Your task to perform on an android device: toggle notification dots Image 0: 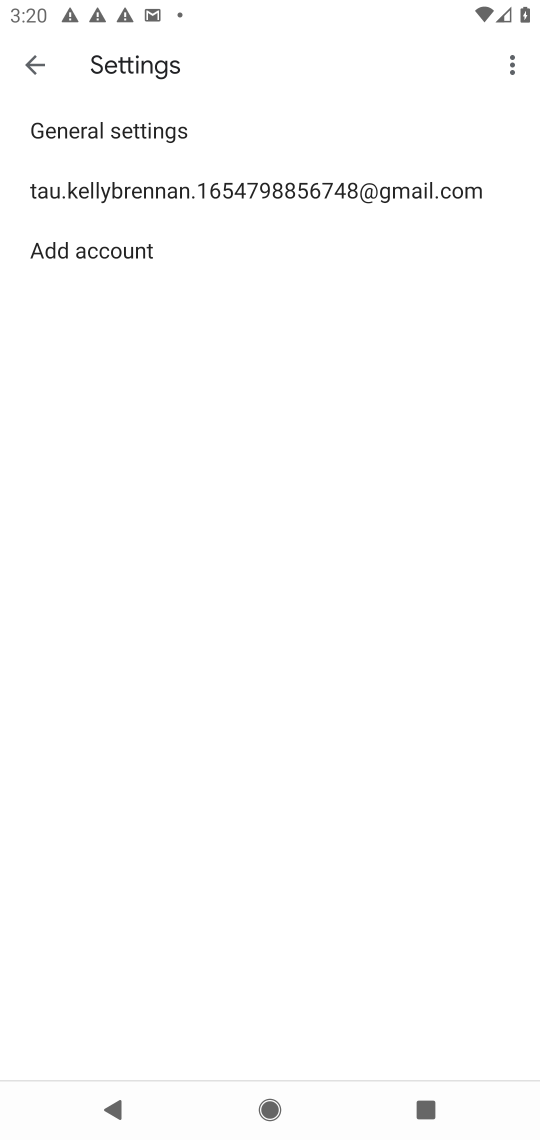
Step 0: press home button
Your task to perform on an android device: toggle notification dots Image 1: 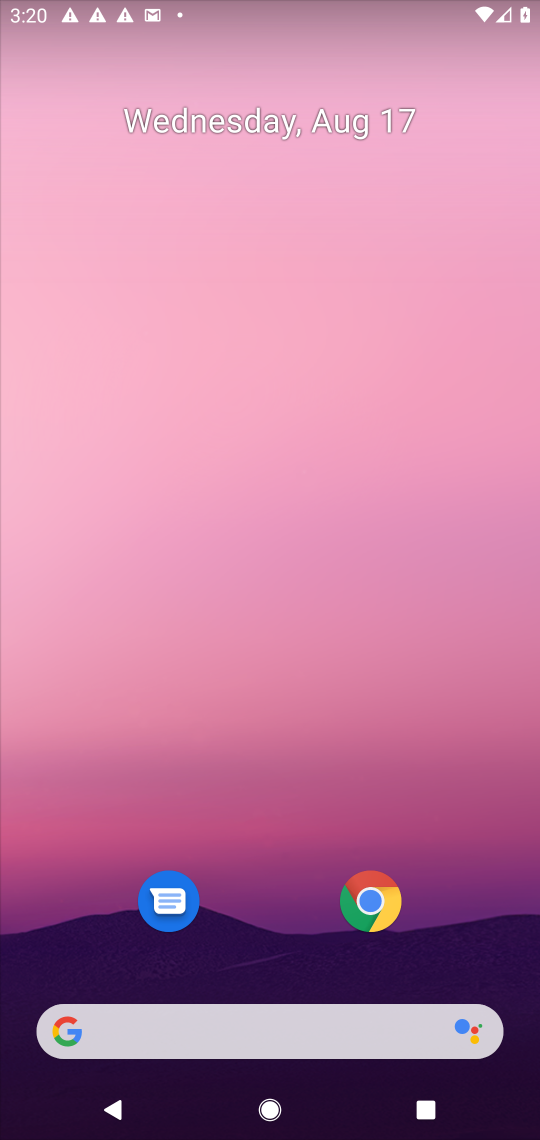
Step 1: drag from (210, 999) to (312, 352)
Your task to perform on an android device: toggle notification dots Image 2: 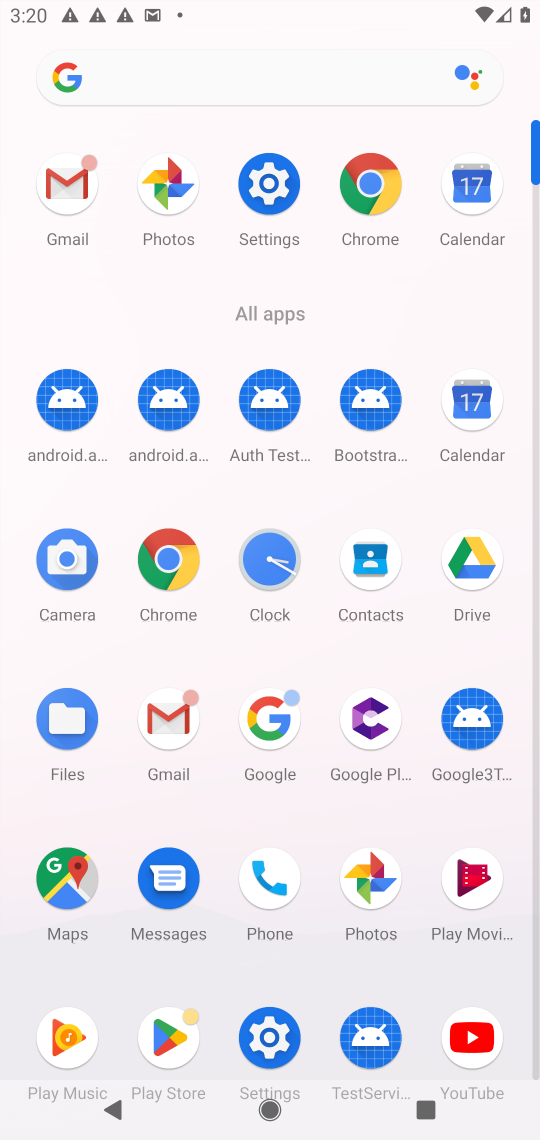
Step 2: click (246, 182)
Your task to perform on an android device: toggle notification dots Image 3: 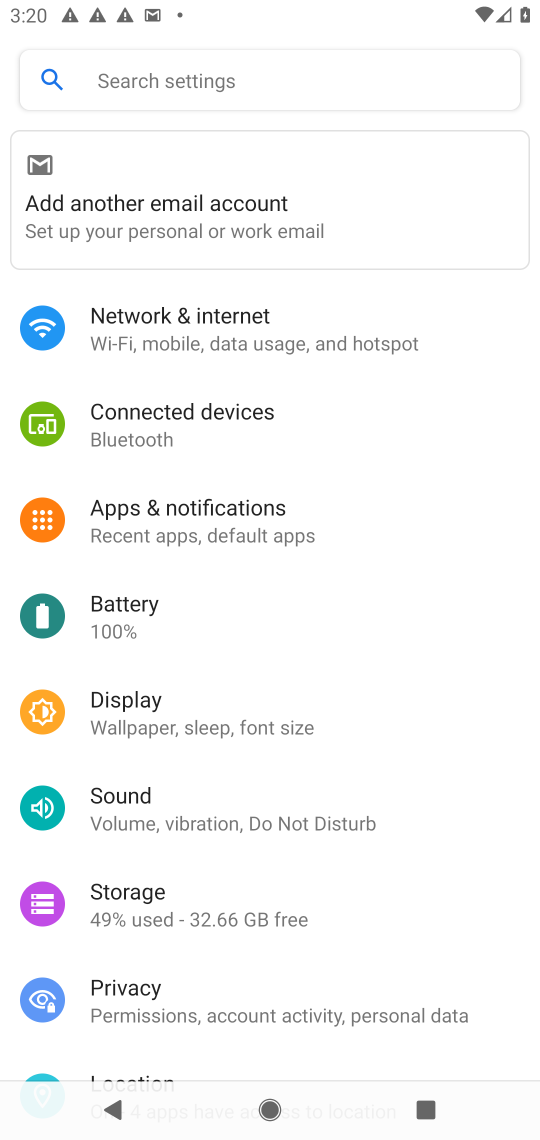
Step 3: click (211, 526)
Your task to perform on an android device: toggle notification dots Image 4: 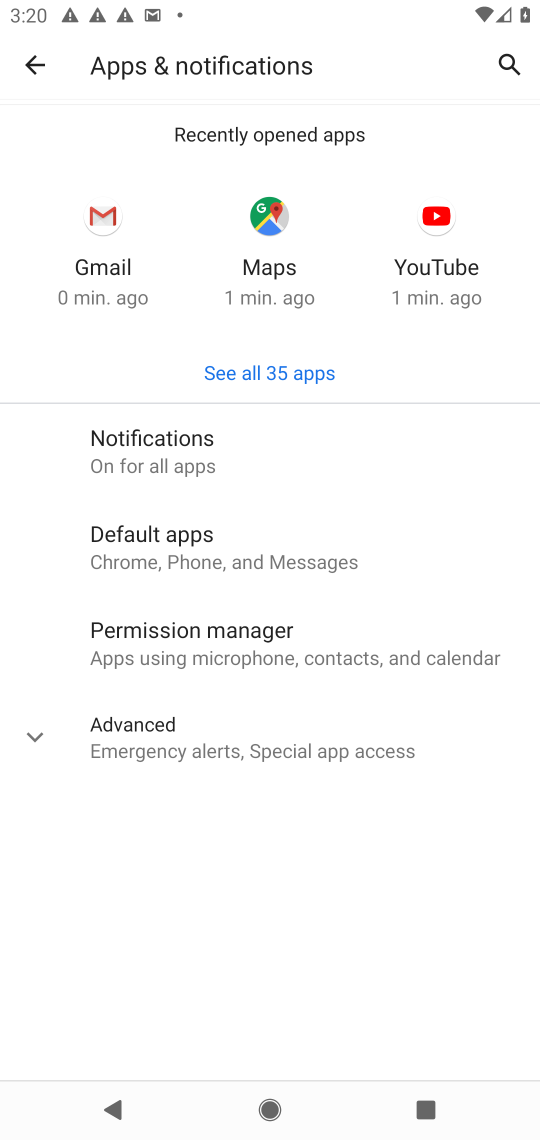
Step 4: click (194, 739)
Your task to perform on an android device: toggle notification dots Image 5: 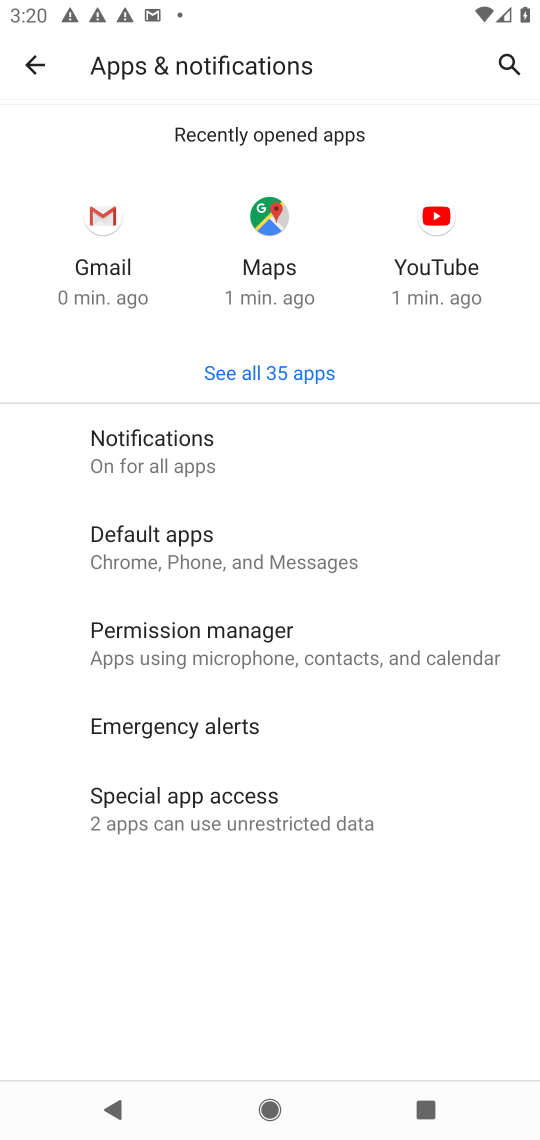
Step 5: click (138, 434)
Your task to perform on an android device: toggle notification dots Image 6: 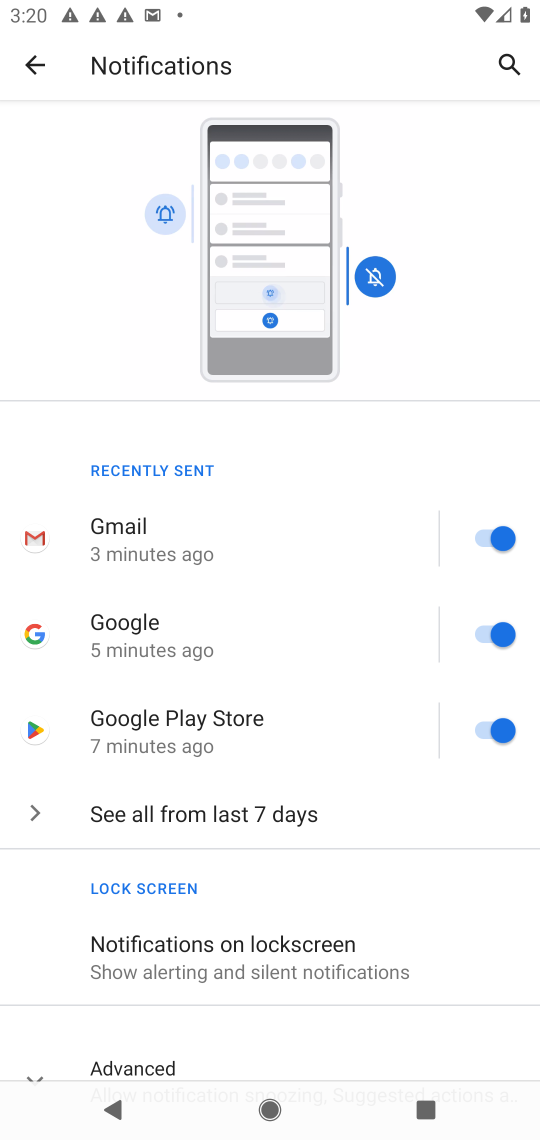
Step 6: drag from (184, 1027) to (236, 480)
Your task to perform on an android device: toggle notification dots Image 7: 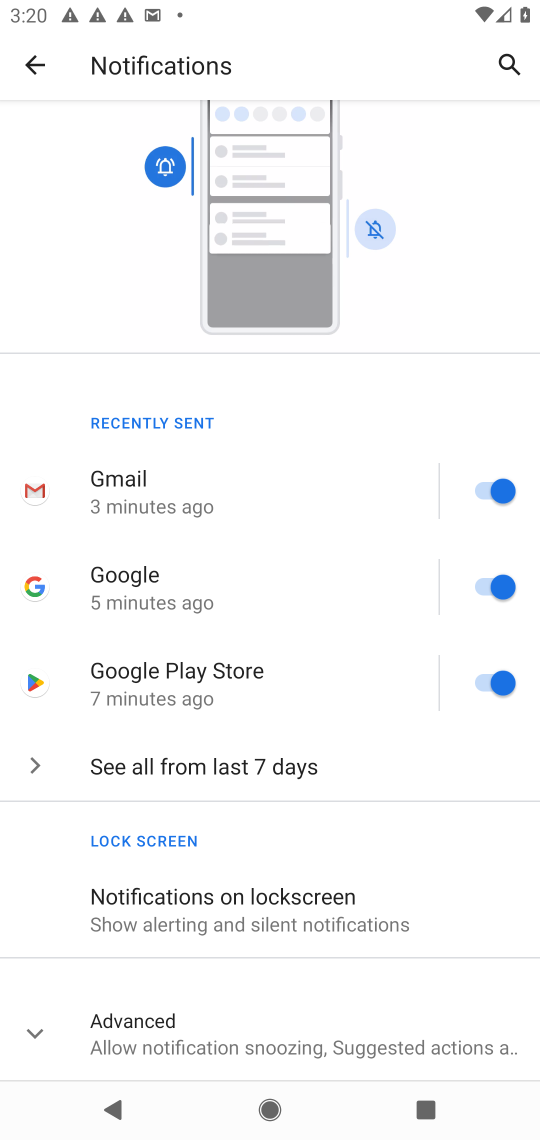
Step 7: click (210, 1013)
Your task to perform on an android device: toggle notification dots Image 8: 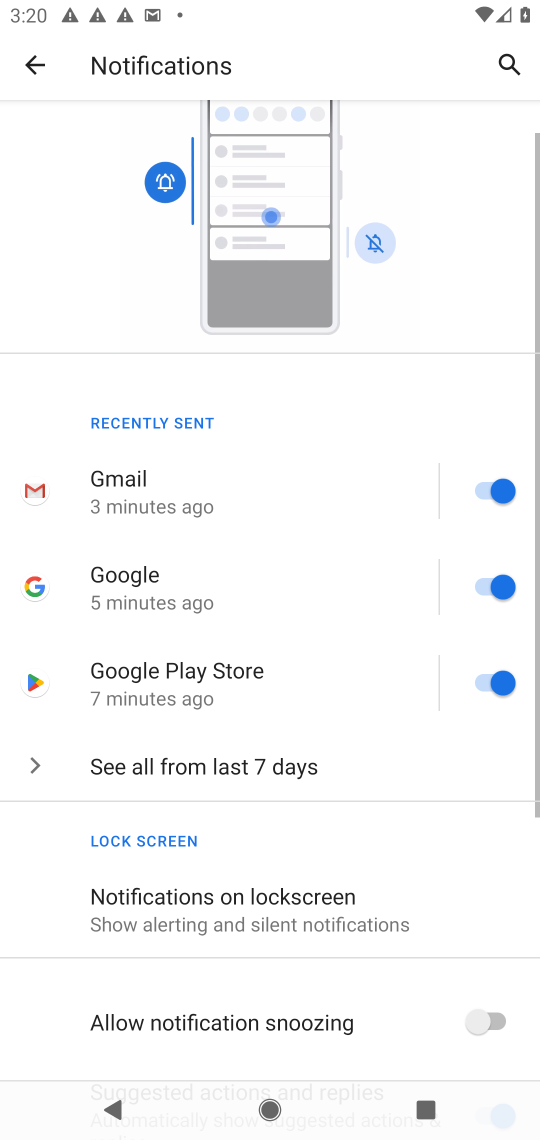
Step 8: drag from (215, 965) to (275, 543)
Your task to perform on an android device: toggle notification dots Image 9: 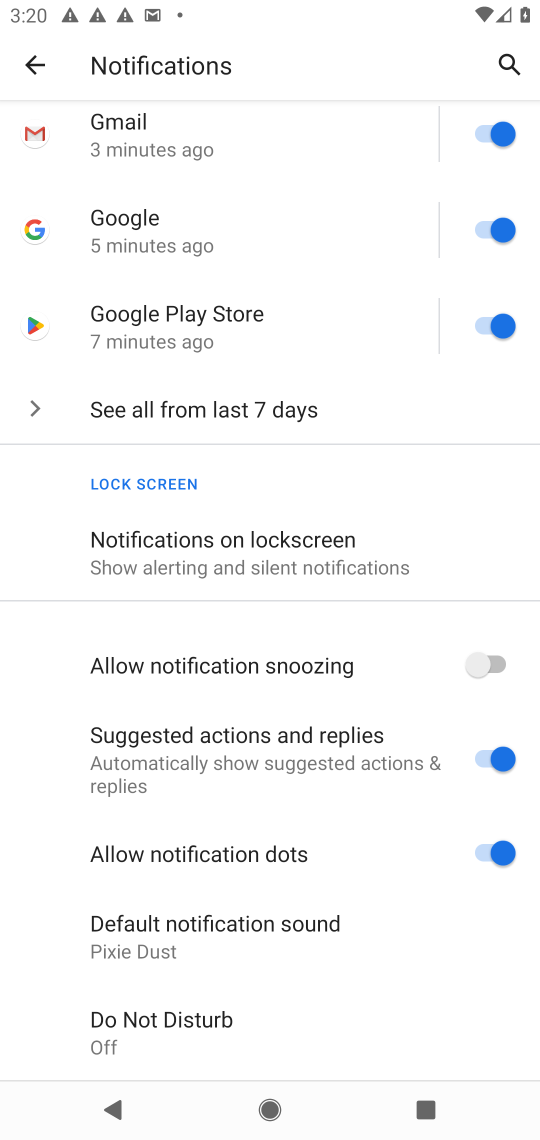
Step 9: click (497, 857)
Your task to perform on an android device: toggle notification dots Image 10: 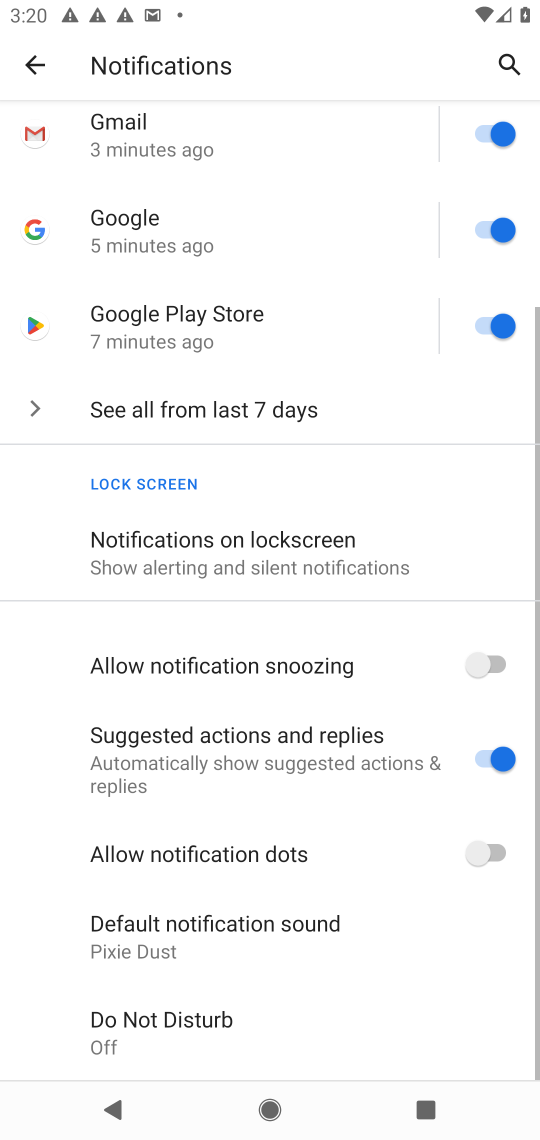
Step 10: task complete